Your task to perform on an android device: Open the phone app and click the voicemail tab. Image 0: 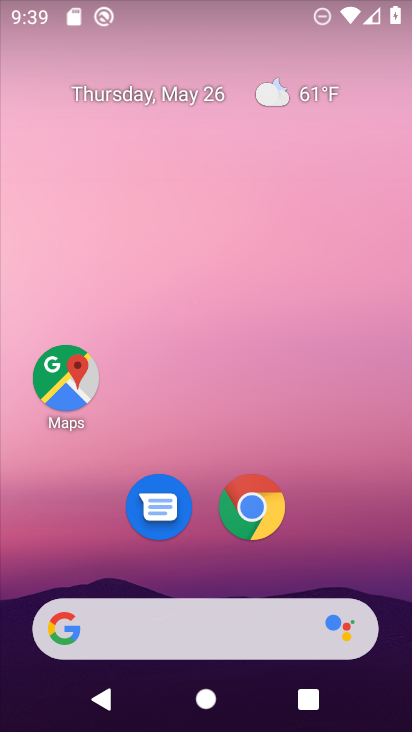
Step 0: drag from (332, 514) to (240, 131)
Your task to perform on an android device: Open the phone app and click the voicemail tab. Image 1: 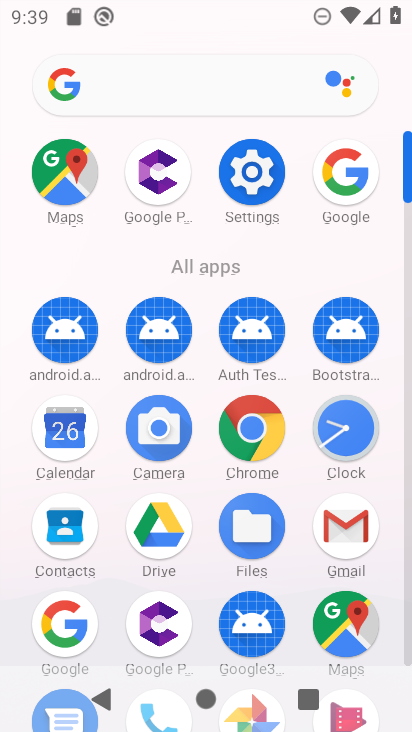
Step 1: drag from (201, 498) to (209, 368)
Your task to perform on an android device: Open the phone app and click the voicemail tab. Image 2: 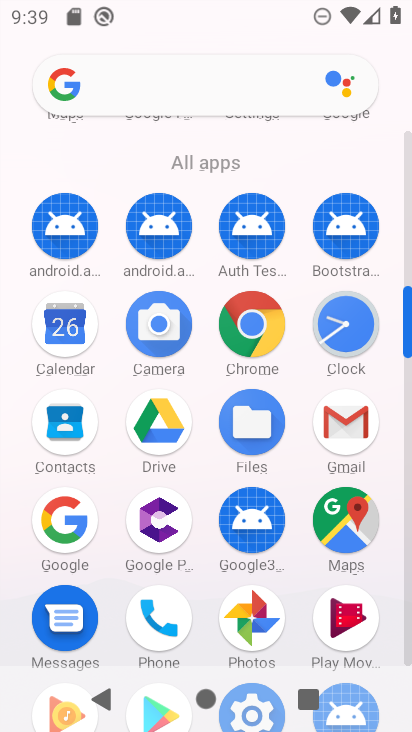
Step 2: click (153, 620)
Your task to perform on an android device: Open the phone app and click the voicemail tab. Image 3: 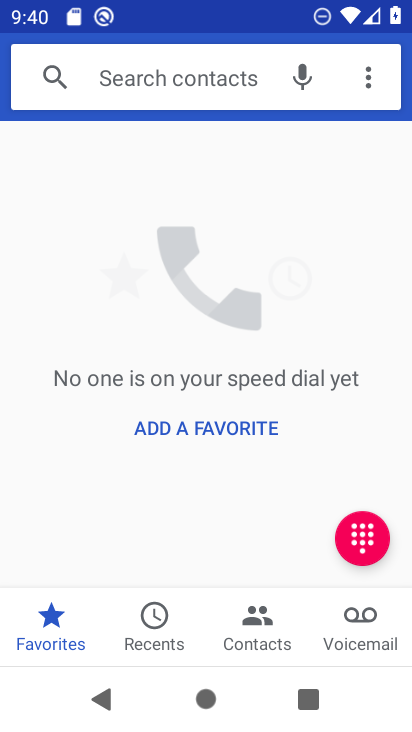
Step 3: click (360, 624)
Your task to perform on an android device: Open the phone app and click the voicemail tab. Image 4: 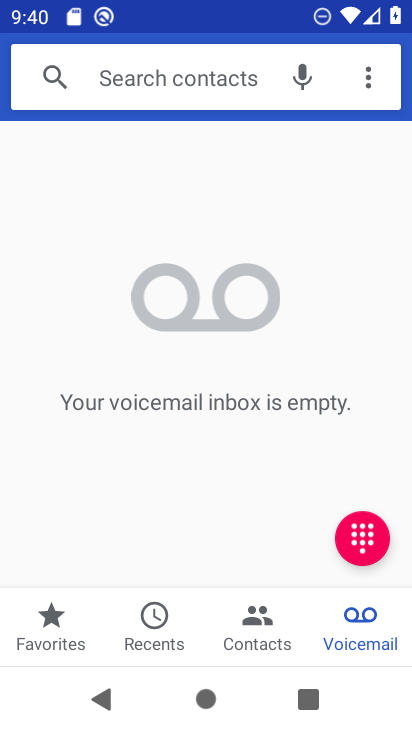
Step 4: task complete